Your task to perform on an android device: see tabs open on other devices in the chrome app Image 0: 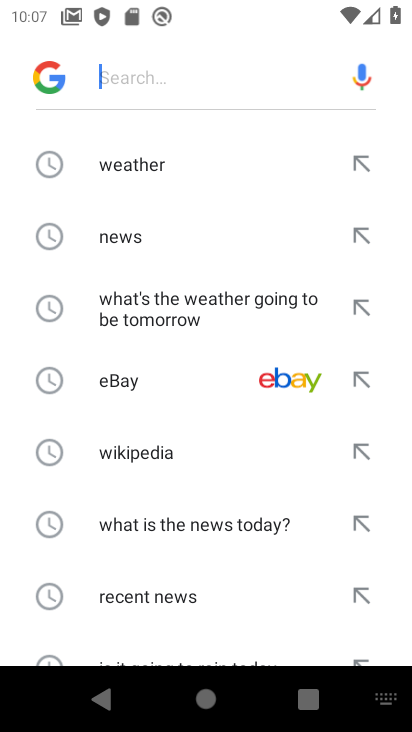
Step 0: press home button
Your task to perform on an android device: see tabs open on other devices in the chrome app Image 1: 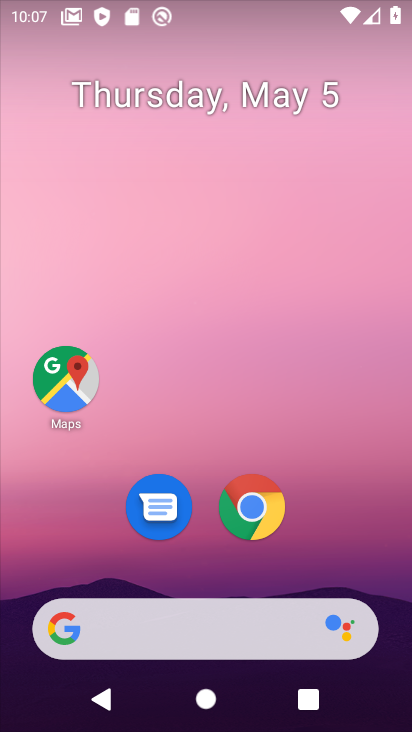
Step 1: click (245, 517)
Your task to perform on an android device: see tabs open on other devices in the chrome app Image 2: 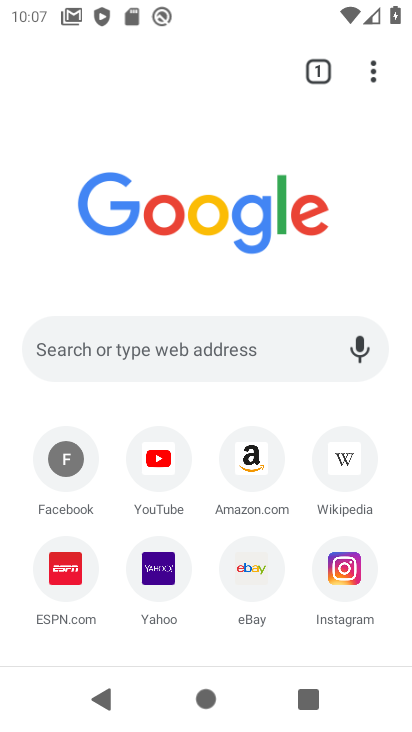
Step 2: drag from (376, 70) to (167, 340)
Your task to perform on an android device: see tabs open on other devices in the chrome app Image 3: 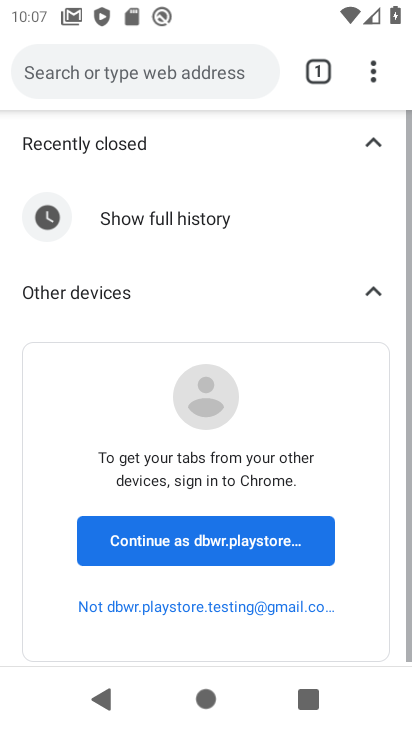
Step 3: click (207, 540)
Your task to perform on an android device: see tabs open on other devices in the chrome app Image 4: 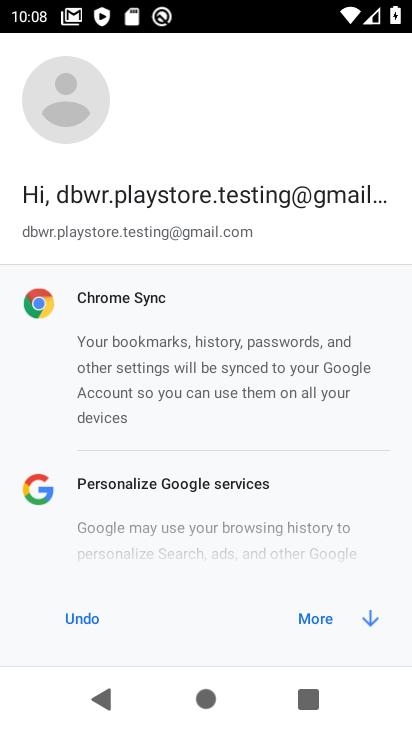
Step 4: click (312, 616)
Your task to perform on an android device: see tabs open on other devices in the chrome app Image 5: 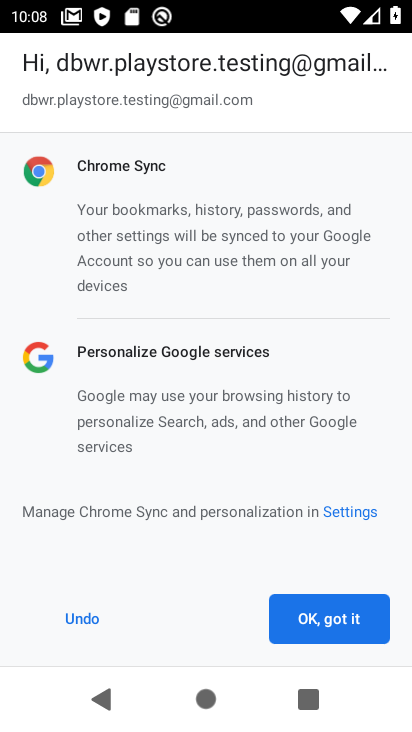
Step 5: click (312, 616)
Your task to perform on an android device: see tabs open on other devices in the chrome app Image 6: 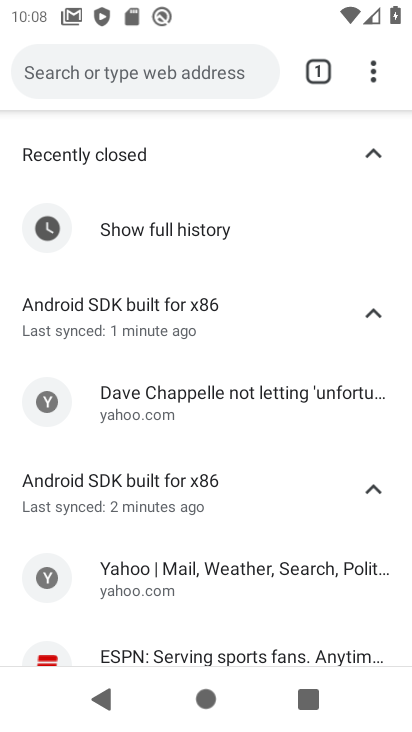
Step 6: task complete